Your task to perform on an android device: find which apps use the phone's location Image 0: 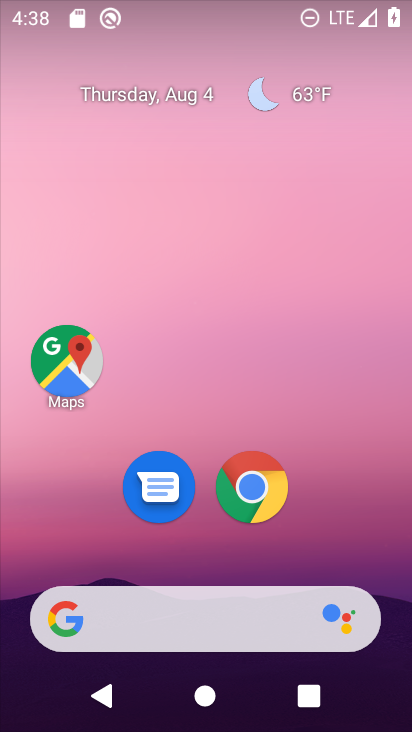
Step 0: drag from (109, 560) to (175, 81)
Your task to perform on an android device: find which apps use the phone's location Image 1: 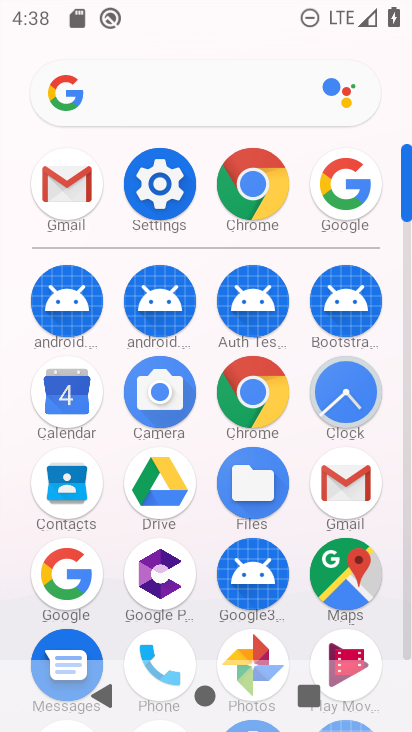
Step 1: click (155, 172)
Your task to perform on an android device: find which apps use the phone's location Image 2: 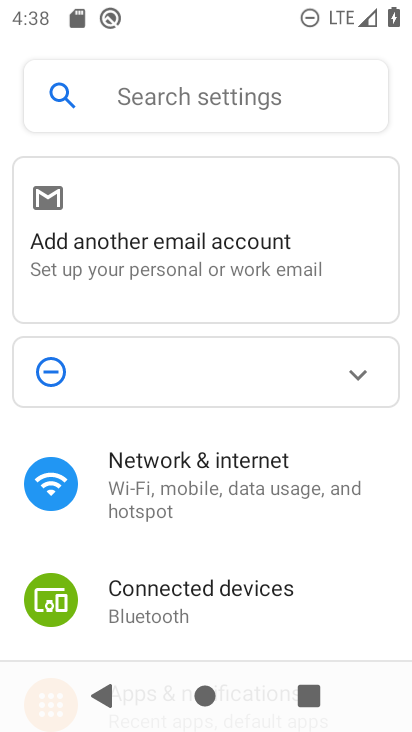
Step 2: drag from (211, 523) to (246, 50)
Your task to perform on an android device: find which apps use the phone's location Image 3: 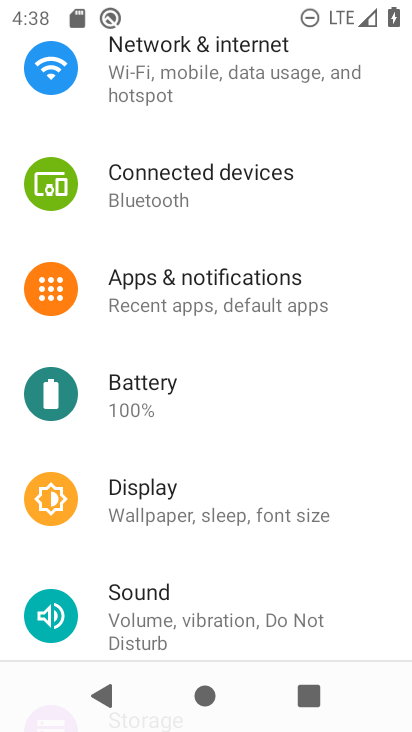
Step 3: drag from (148, 589) to (246, 35)
Your task to perform on an android device: find which apps use the phone's location Image 4: 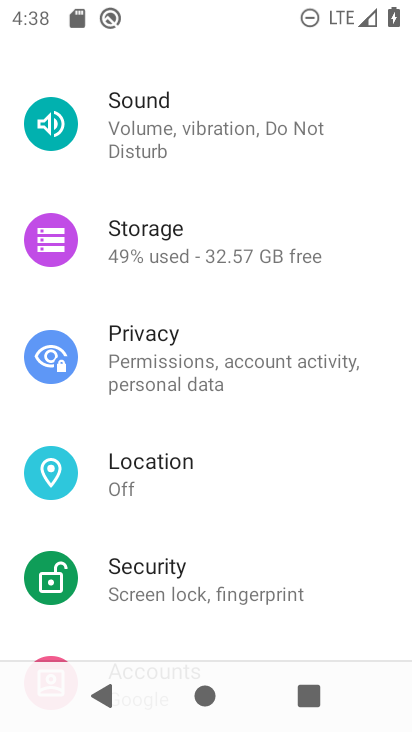
Step 4: click (163, 465)
Your task to perform on an android device: find which apps use the phone's location Image 5: 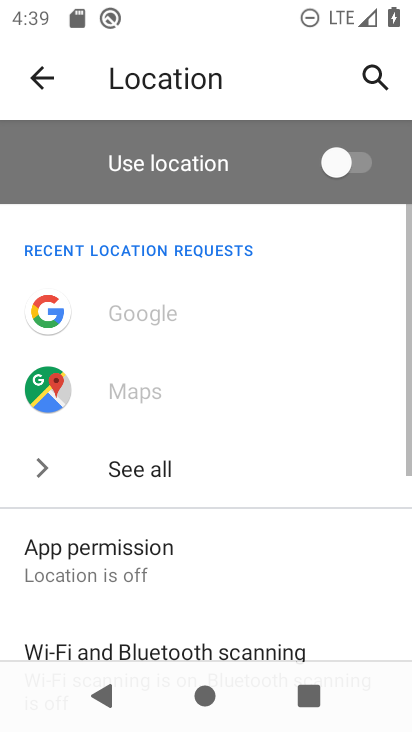
Step 5: click (118, 548)
Your task to perform on an android device: find which apps use the phone's location Image 6: 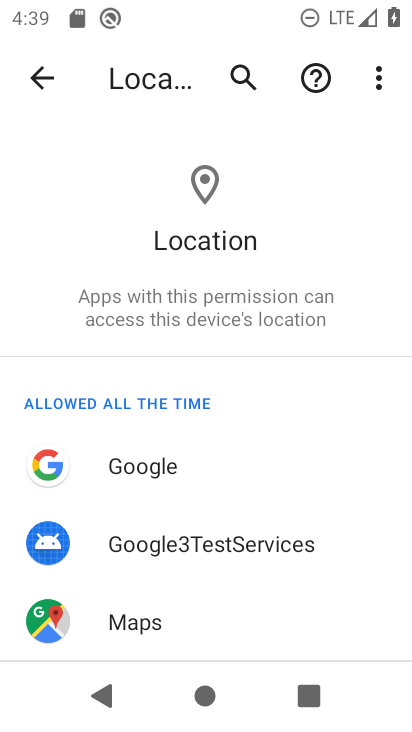
Step 6: task complete